Your task to perform on an android device: Open Google Chrome and click the shortcut for Amazon.com Image 0: 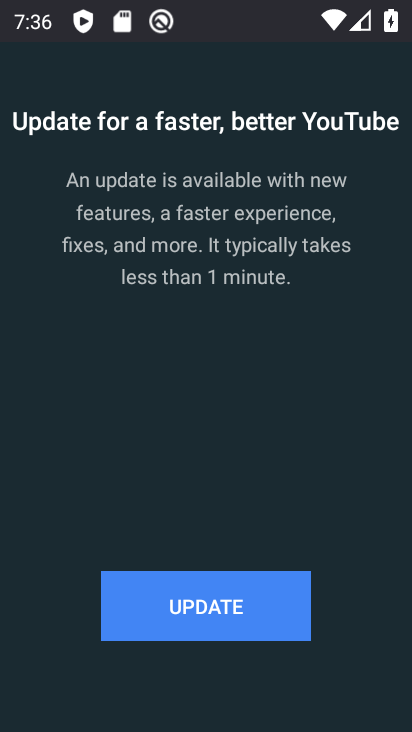
Step 0: press home button
Your task to perform on an android device: Open Google Chrome and click the shortcut for Amazon.com Image 1: 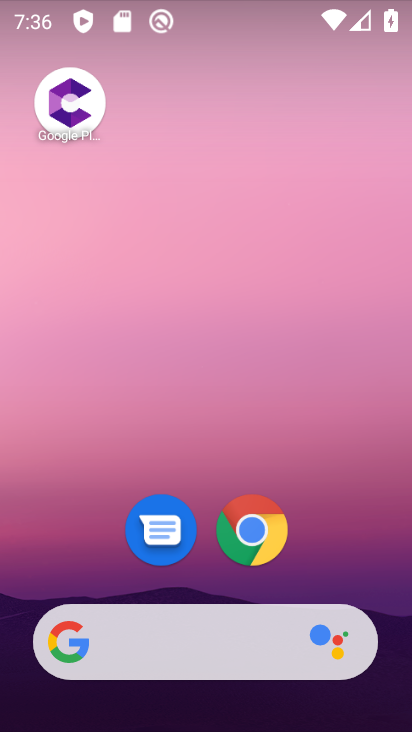
Step 1: click (250, 534)
Your task to perform on an android device: Open Google Chrome and click the shortcut for Amazon.com Image 2: 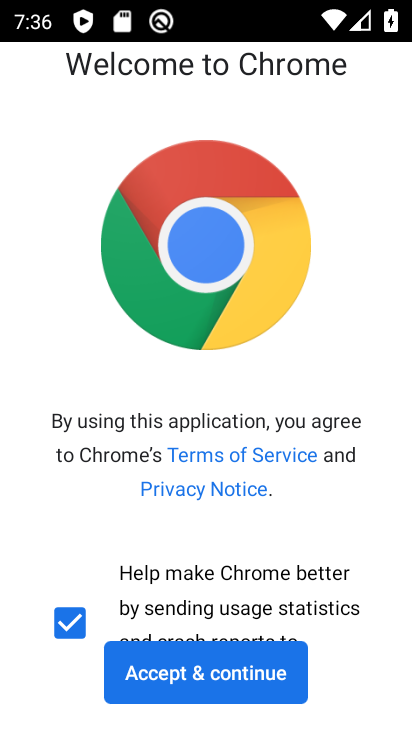
Step 2: click (213, 675)
Your task to perform on an android device: Open Google Chrome and click the shortcut for Amazon.com Image 3: 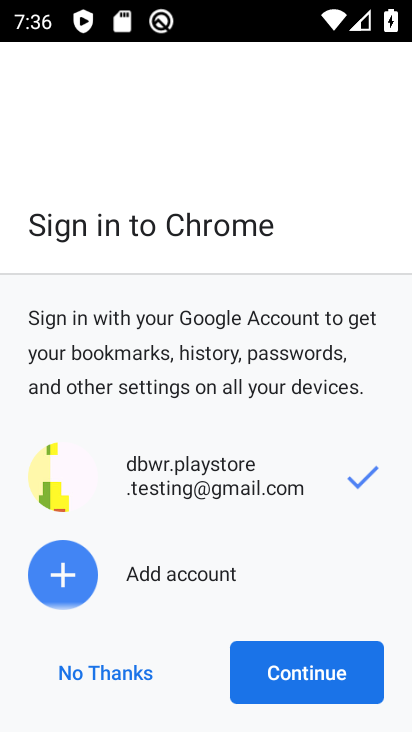
Step 3: click (282, 688)
Your task to perform on an android device: Open Google Chrome and click the shortcut for Amazon.com Image 4: 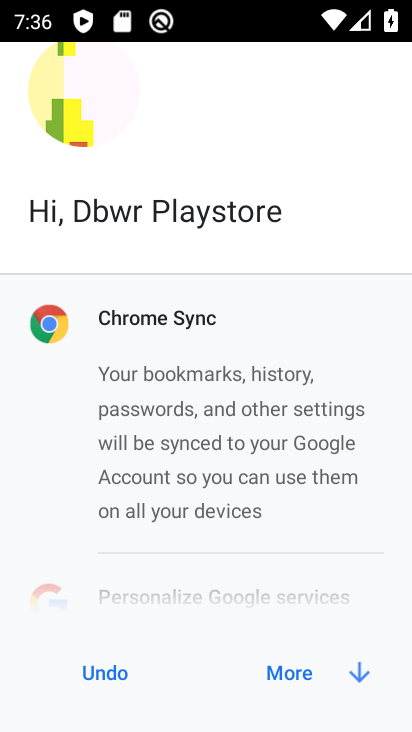
Step 4: click (323, 671)
Your task to perform on an android device: Open Google Chrome and click the shortcut for Amazon.com Image 5: 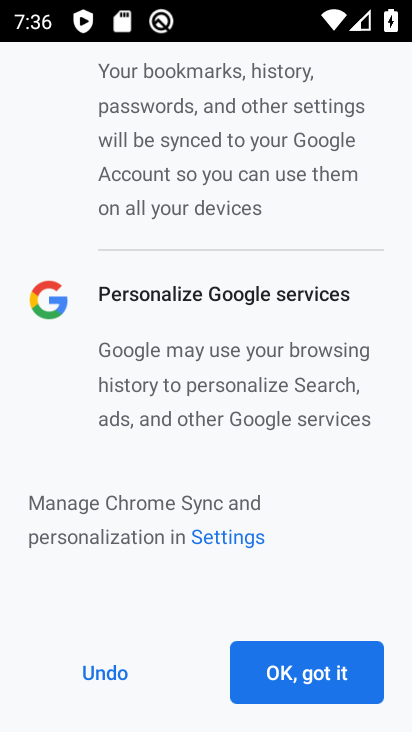
Step 5: click (323, 671)
Your task to perform on an android device: Open Google Chrome and click the shortcut for Amazon.com Image 6: 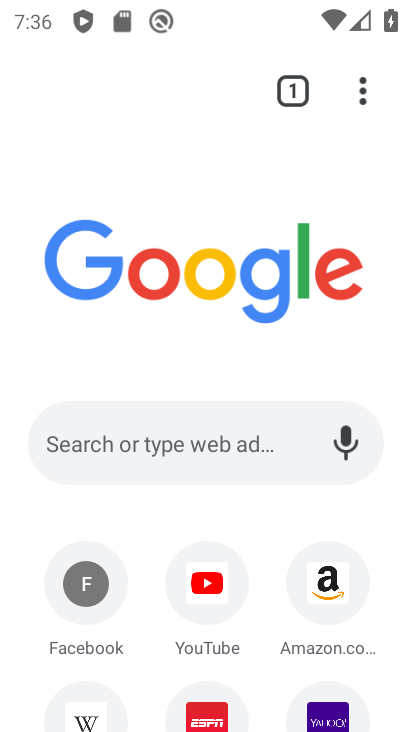
Step 6: click (343, 580)
Your task to perform on an android device: Open Google Chrome and click the shortcut for Amazon.com Image 7: 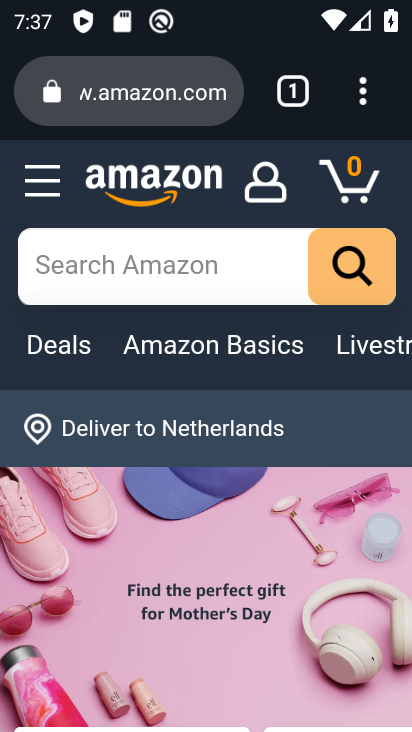
Step 7: task complete